Your task to perform on an android device: Go to Yahoo.com Image 0: 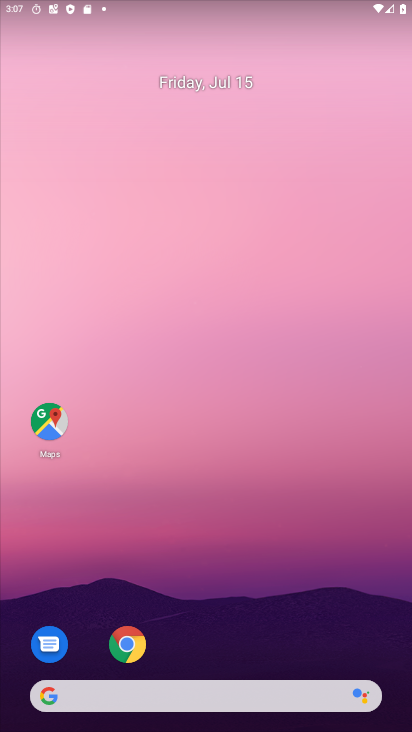
Step 0: click (137, 636)
Your task to perform on an android device: Go to Yahoo.com Image 1: 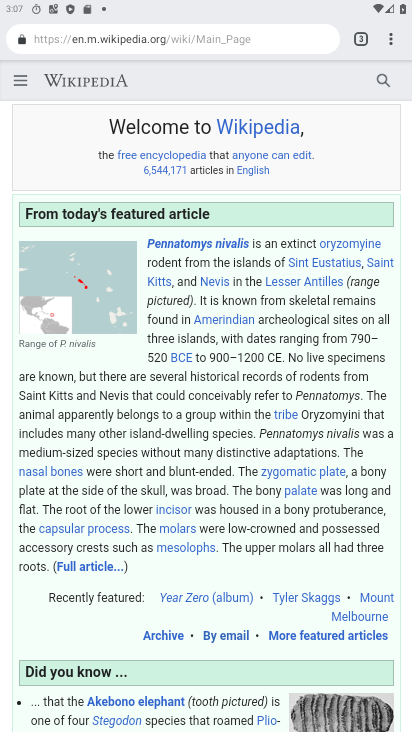
Step 1: click (359, 33)
Your task to perform on an android device: Go to Yahoo.com Image 2: 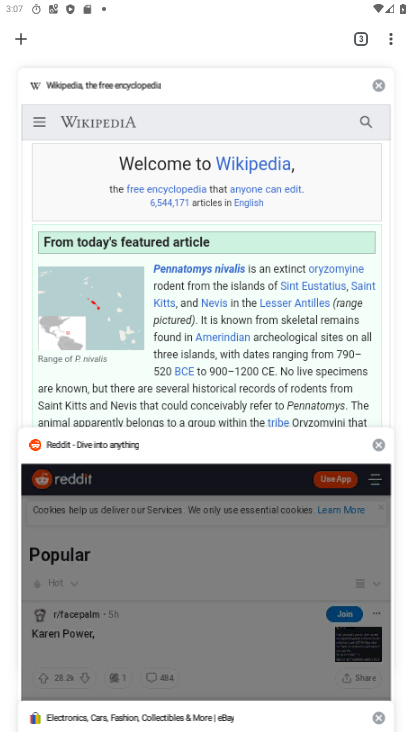
Step 2: click (26, 37)
Your task to perform on an android device: Go to Yahoo.com Image 3: 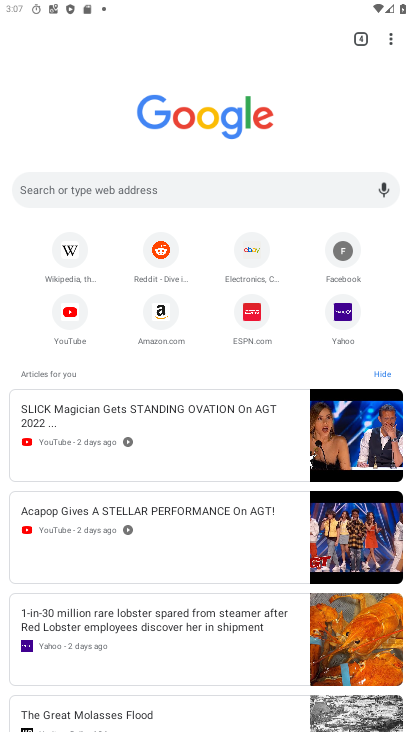
Step 3: click (355, 326)
Your task to perform on an android device: Go to Yahoo.com Image 4: 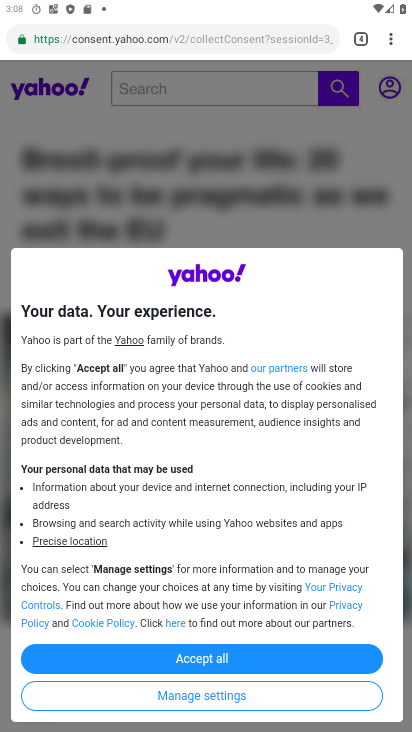
Step 4: task complete